Your task to perform on an android device: turn on the 12-hour format for clock Image 0: 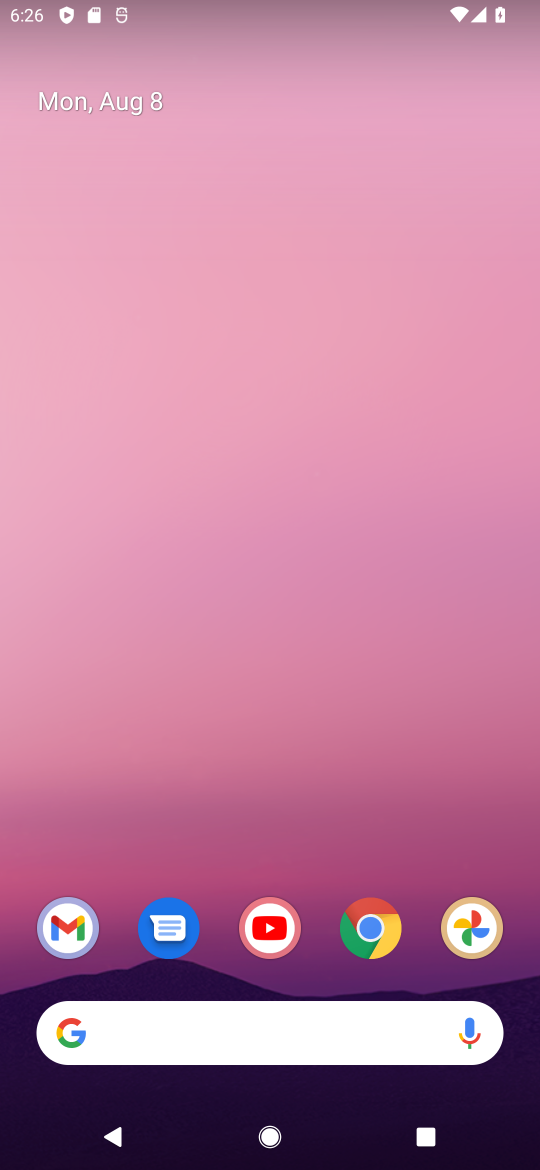
Step 0: drag from (369, 1074) to (382, 612)
Your task to perform on an android device: turn on the 12-hour format for clock Image 1: 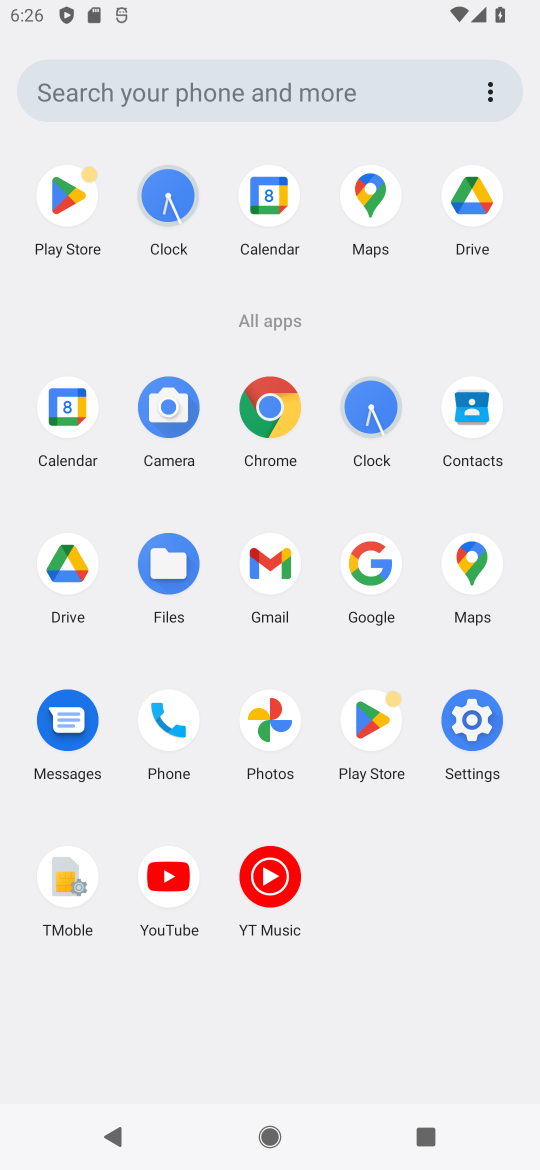
Step 1: click (375, 406)
Your task to perform on an android device: turn on the 12-hour format for clock Image 2: 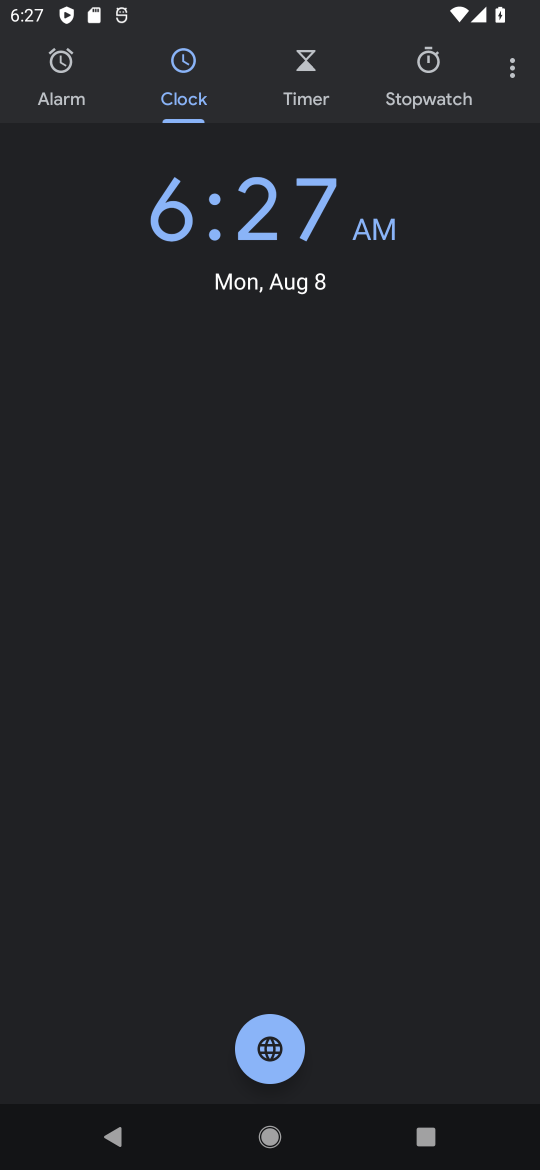
Step 2: click (505, 71)
Your task to perform on an android device: turn on the 12-hour format for clock Image 3: 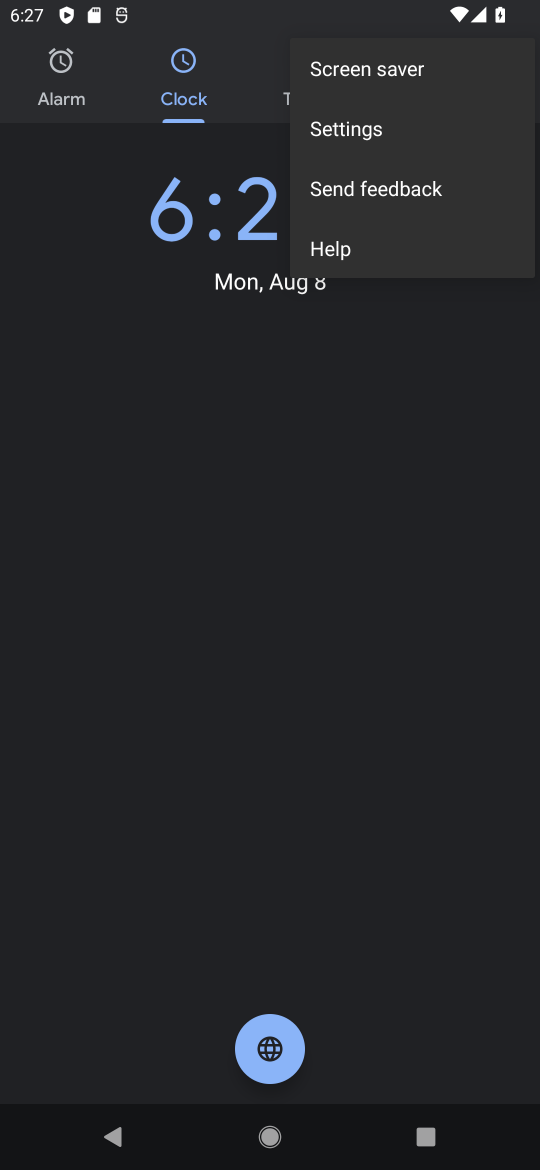
Step 3: click (359, 137)
Your task to perform on an android device: turn on the 12-hour format for clock Image 4: 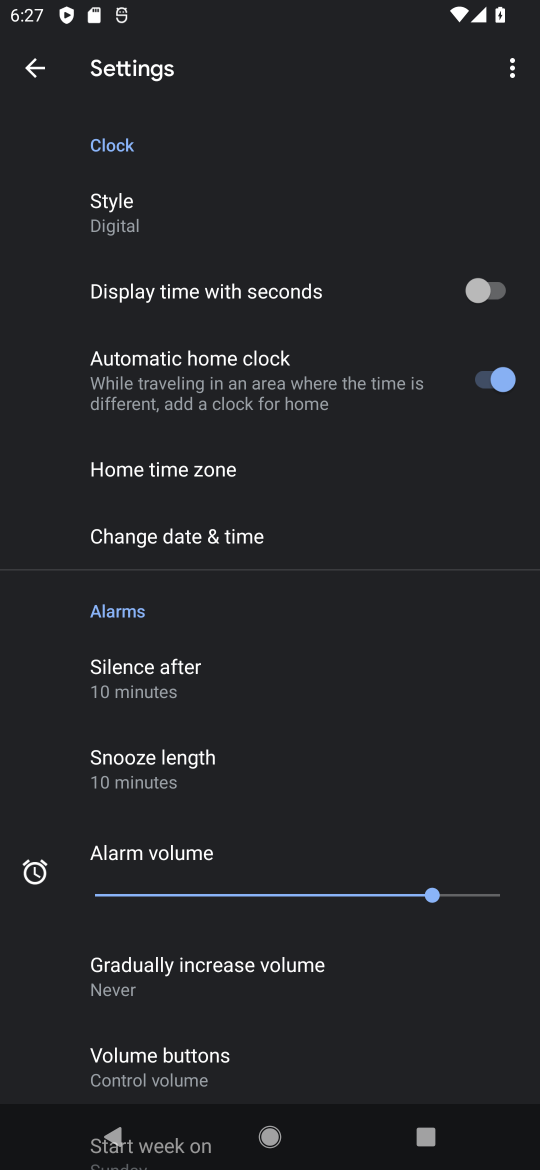
Step 4: click (176, 529)
Your task to perform on an android device: turn on the 12-hour format for clock Image 5: 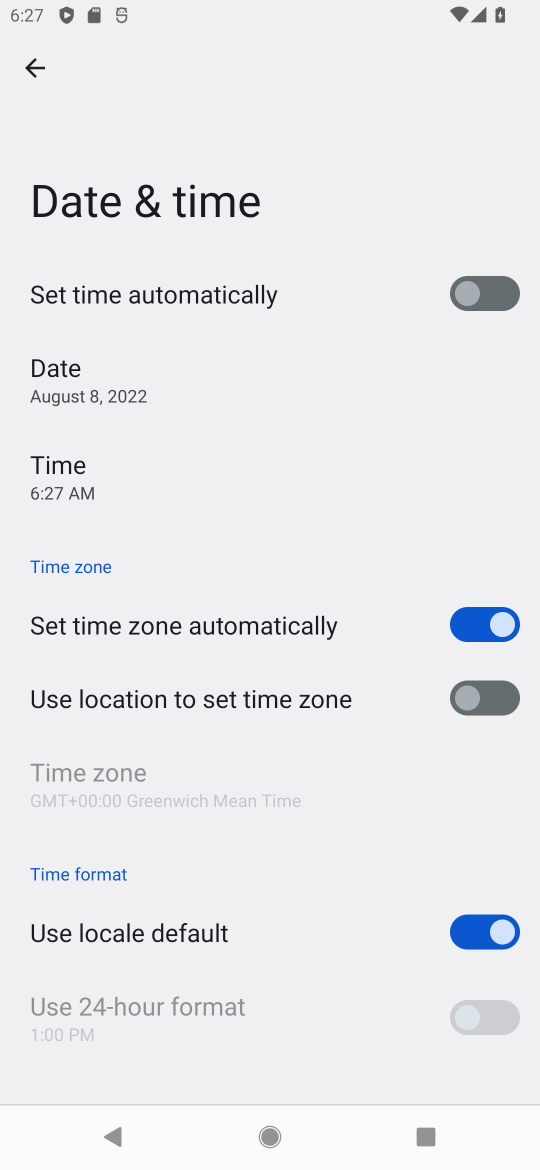
Step 5: click (480, 692)
Your task to perform on an android device: turn on the 12-hour format for clock Image 6: 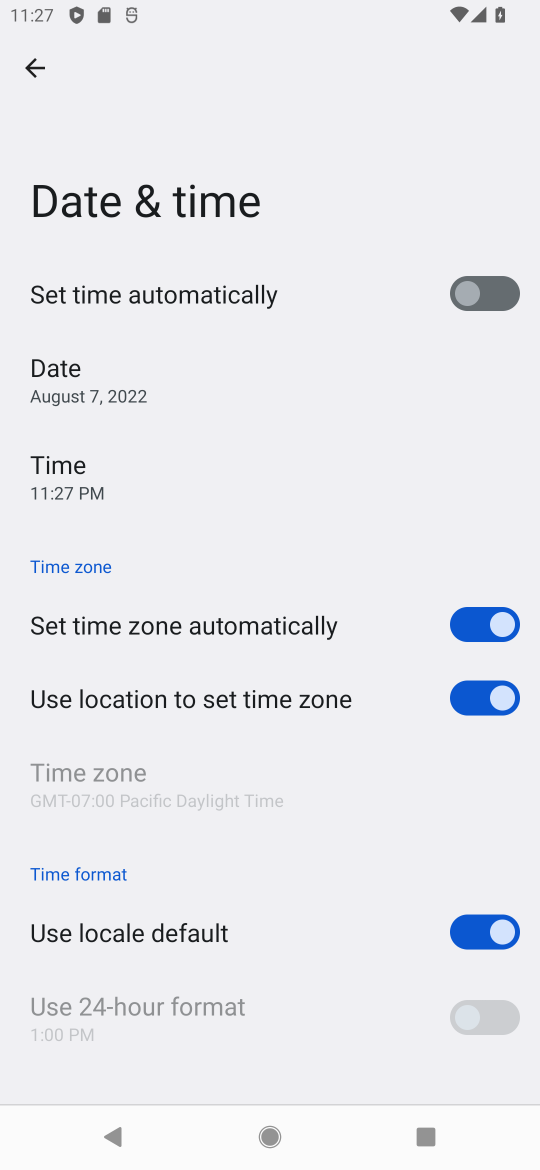
Step 6: click (475, 699)
Your task to perform on an android device: turn on the 12-hour format for clock Image 7: 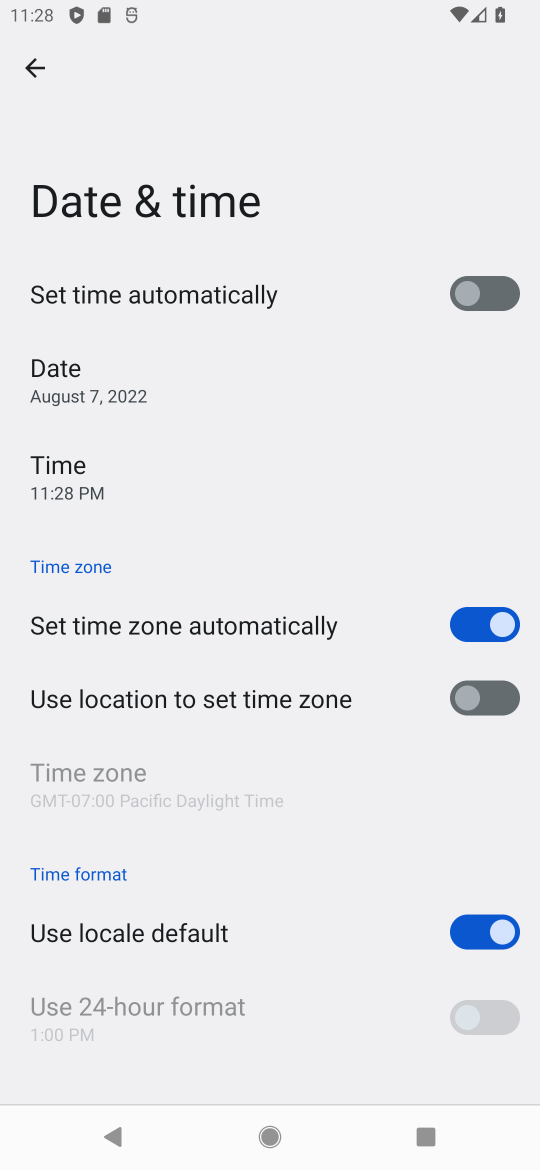
Step 7: task complete